Your task to perform on an android device: What time is it in London? Image 0: 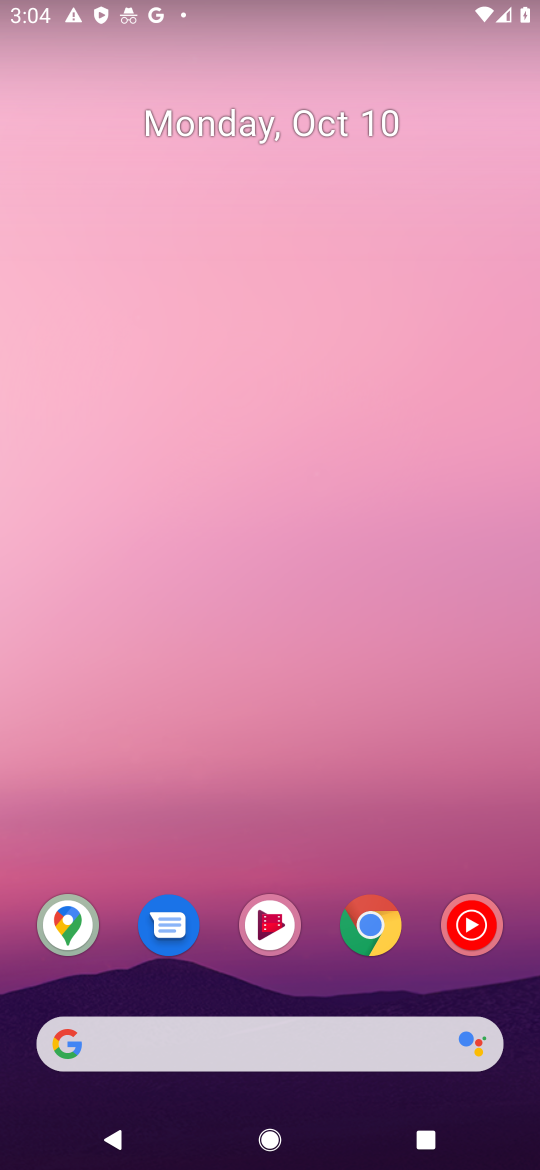
Step 0: click (359, 939)
Your task to perform on an android device: What time is it in London? Image 1: 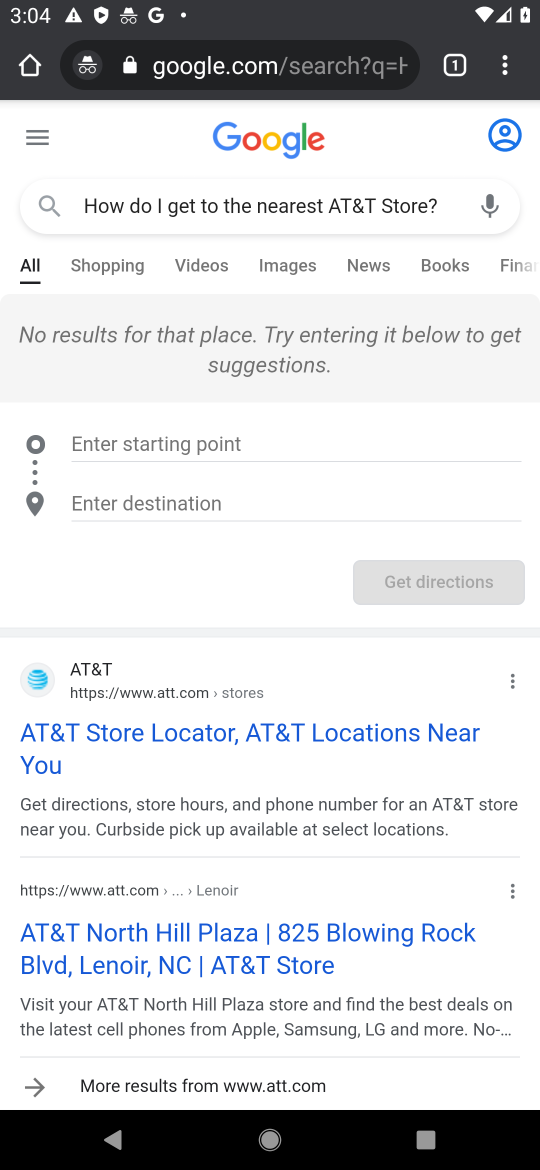
Step 1: click (300, 210)
Your task to perform on an android device: What time is it in London? Image 2: 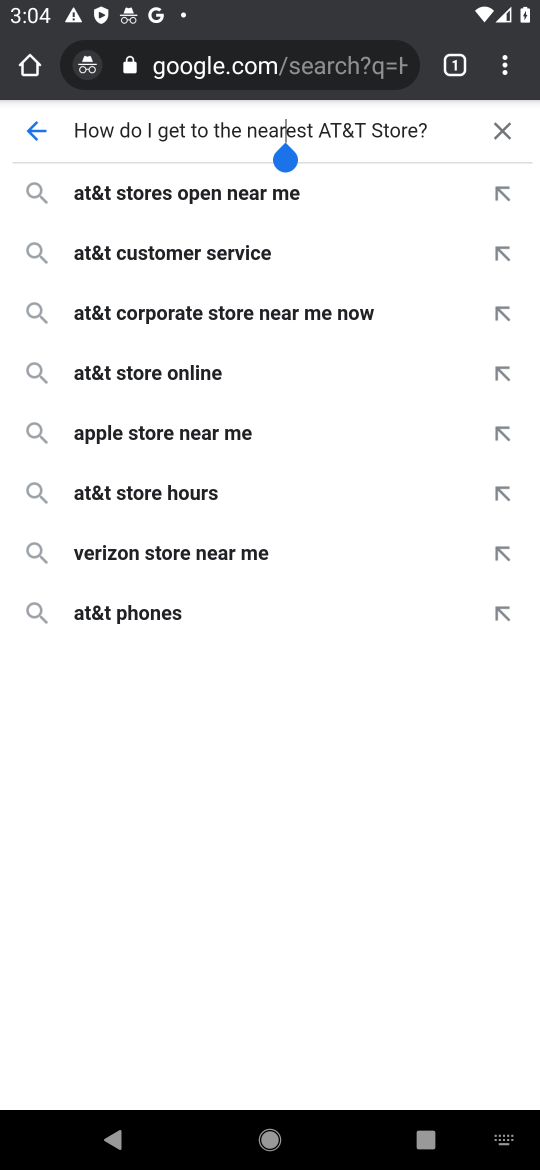
Step 2: click (510, 128)
Your task to perform on an android device: What time is it in London? Image 3: 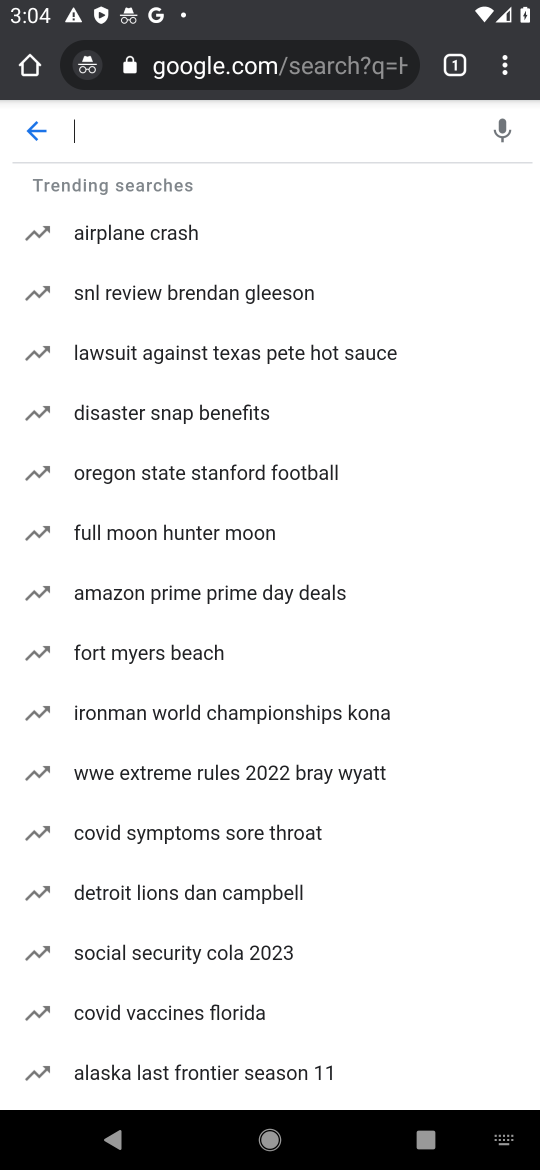
Step 3: type "What time is it in London?"
Your task to perform on an android device: What time is it in London? Image 4: 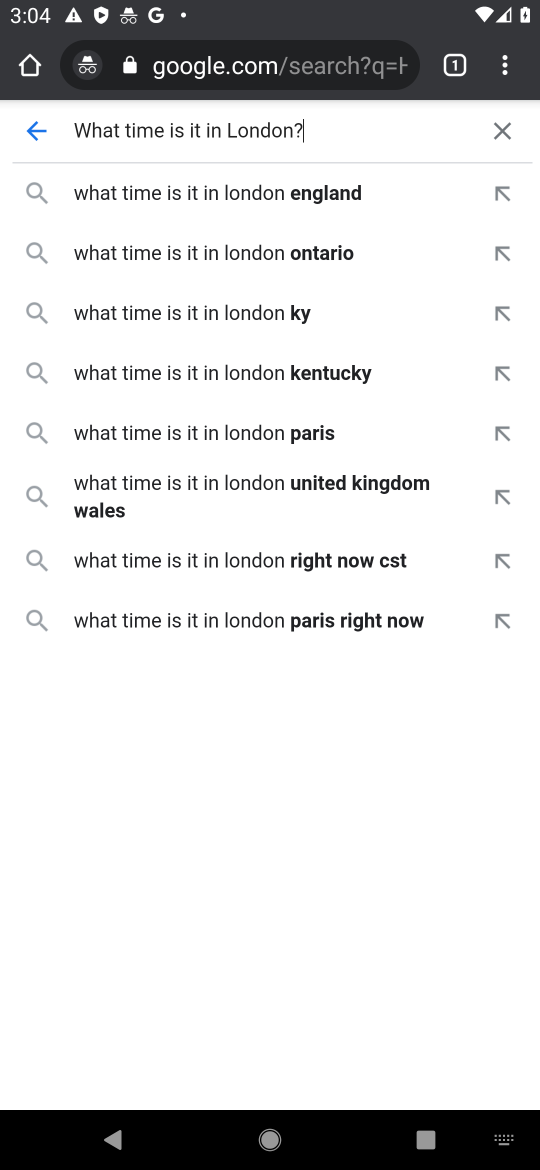
Step 4: press enter
Your task to perform on an android device: What time is it in London? Image 5: 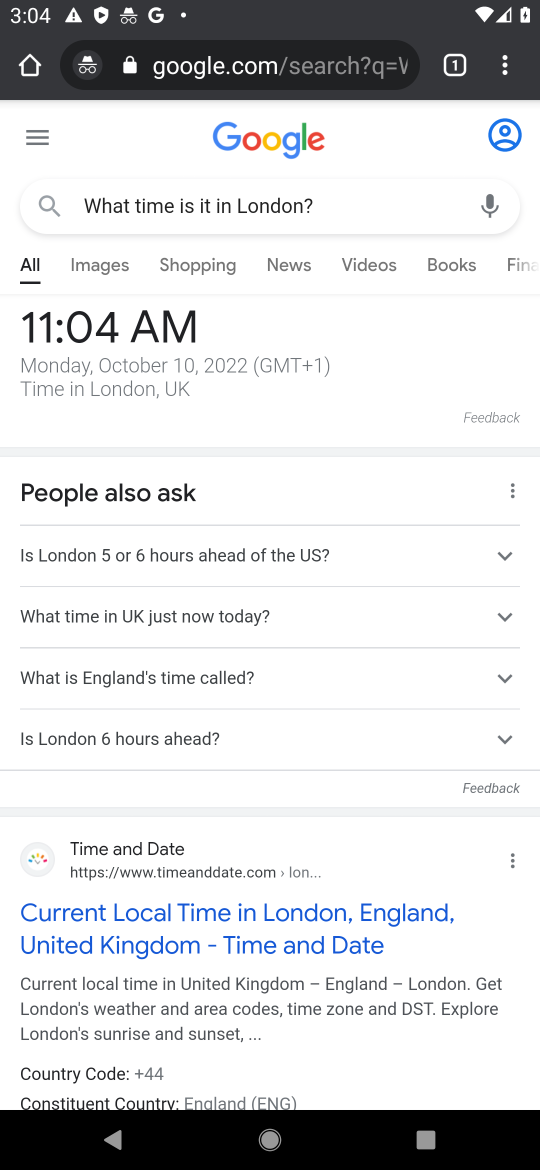
Step 5: task complete